Your task to perform on an android device: set the timer Image 0: 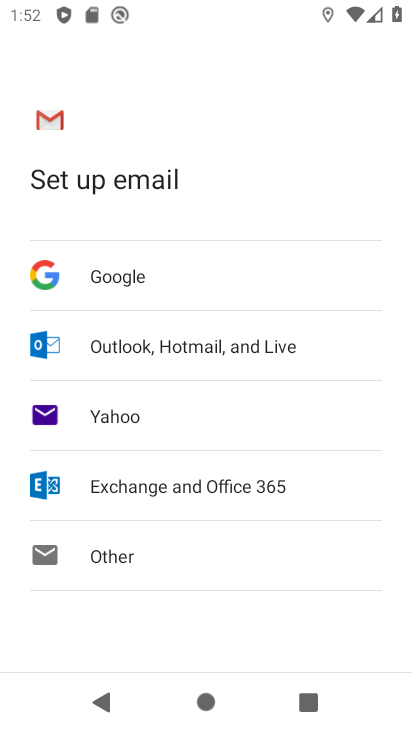
Step 0: press back button
Your task to perform on an android device: set the timer Image 1: 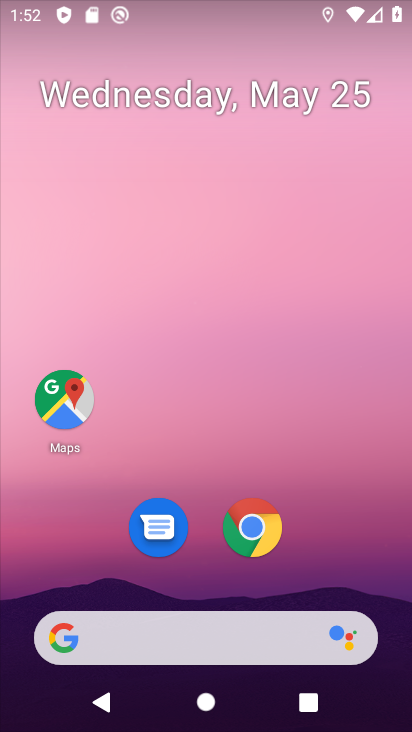
Step 1: drag from (55, 610) to (213, 58)
Your task to perform on an android device: set the timer Image 2: 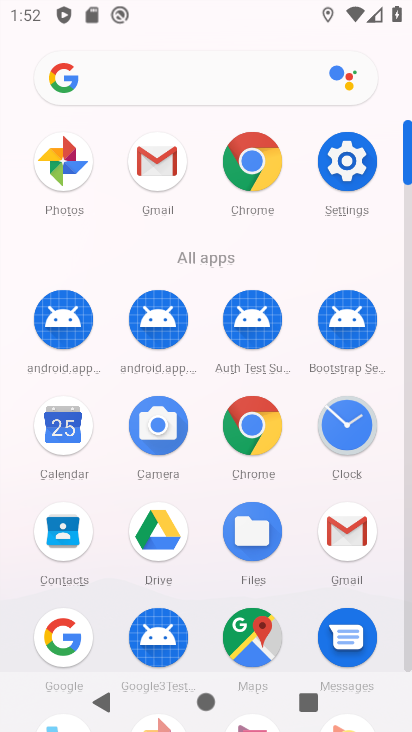
Step 2: click (351, 420)
Your task to perform on an android device: set the timer Image 3: 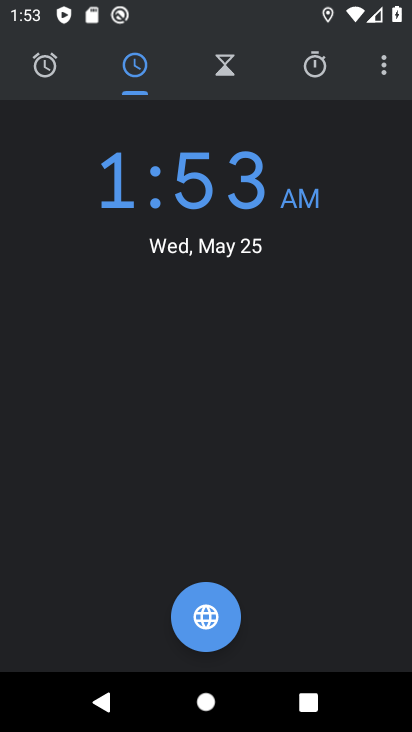
Step 3: click (312, 64)
Your task to perform on an android device: set the timer Image 4: 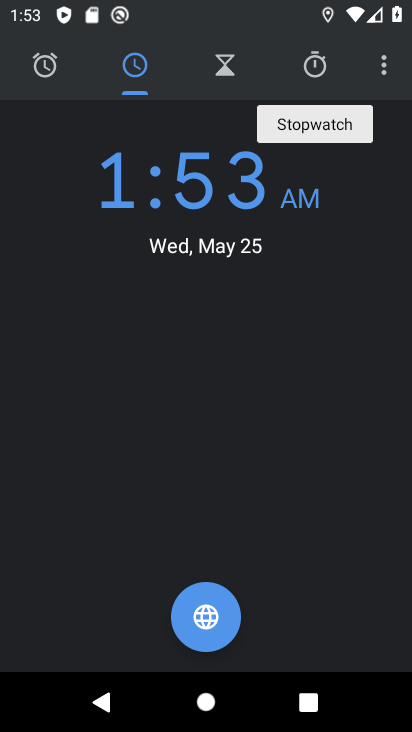
Step 4: click (222, 68)
Your task to perform on an android device: set the timer Image 5: 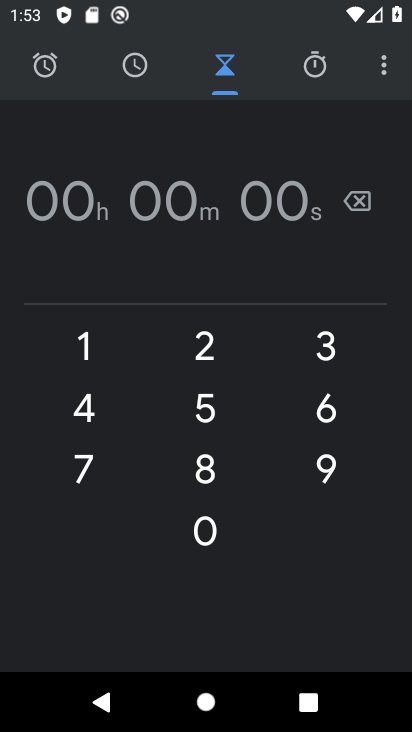
Step 5: click (98, 349)
Your task to perform on an android device: set the timer Image 6: 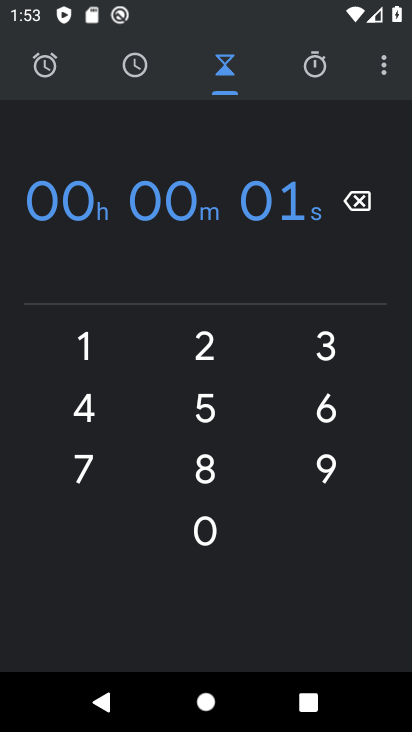
Step 6: click (178, 363)
Your task to perform on an android device: set the timer Image 7: 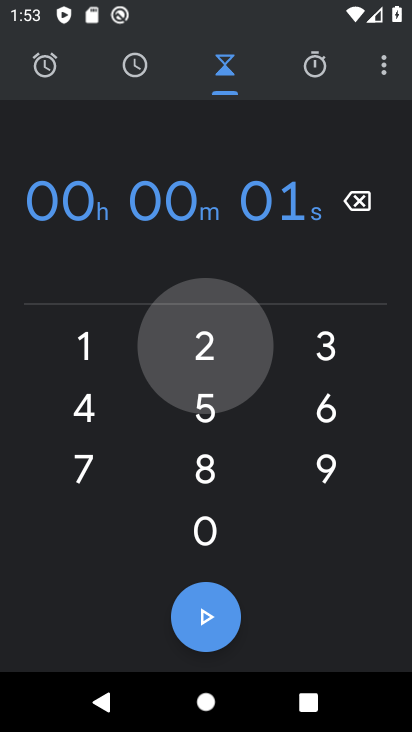
Step 7: click (189, 355)
Your task to perform on an android device: set the timer Image 8: 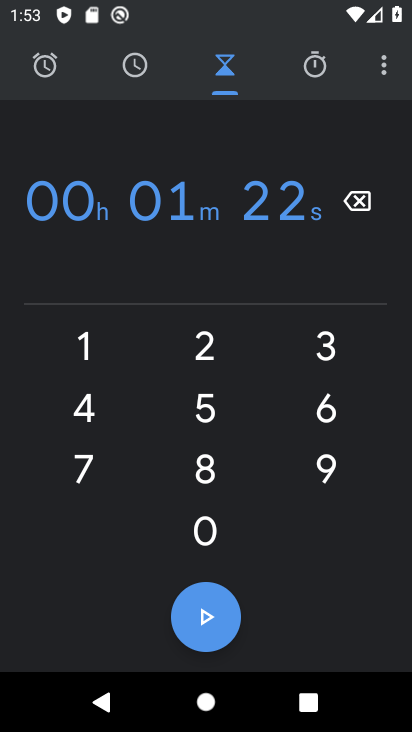
Step 8: click (84, 468)
Your task to perform on an android device: set the timer Image 9: 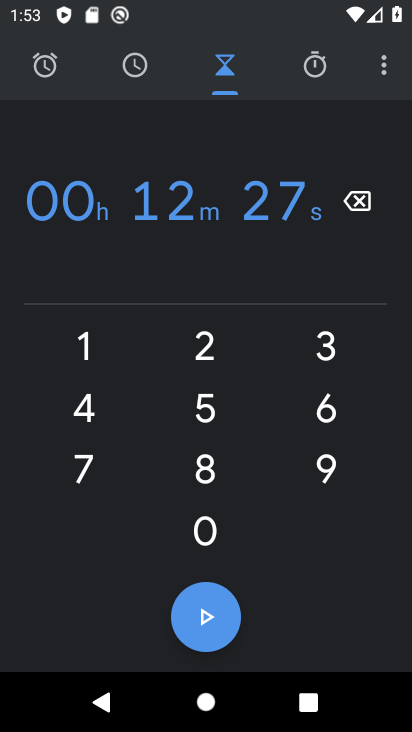
Step 9: click (85, 466)
Your task to perform on an android device: set the timer Image 10: 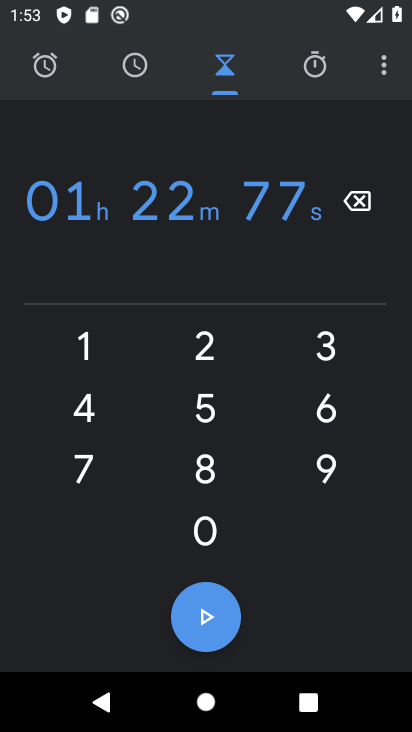
Step 10: click (222, 472)
Your task to perform on an android device: set the timer Image 11: 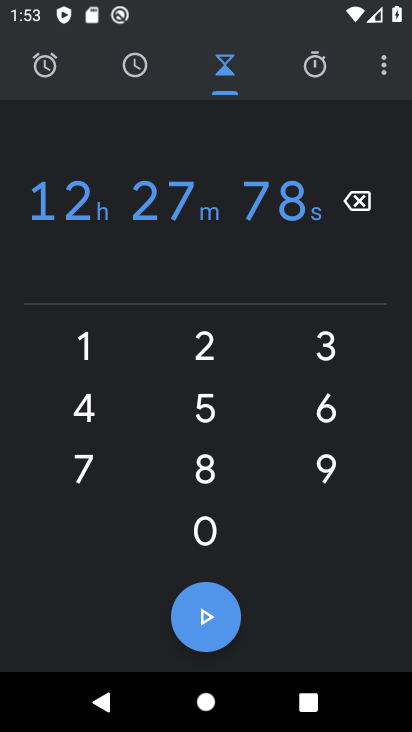
Step 11: click (320, 465)
Your task to perform on an android device: set the timer Image 12: 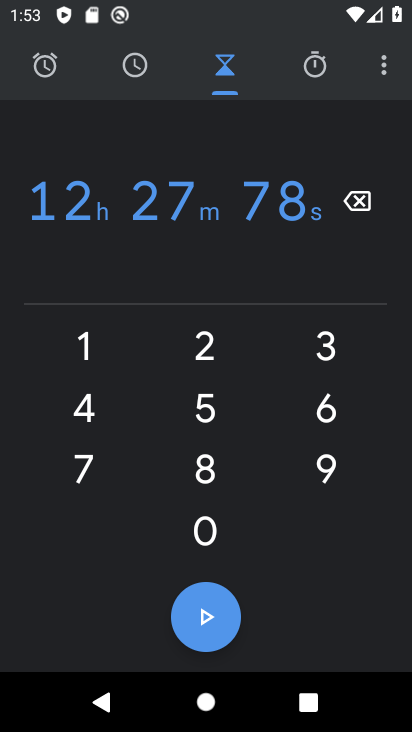
Step 12: click (320, 464)
Your task to perform on an android device: set the timer Image 13: 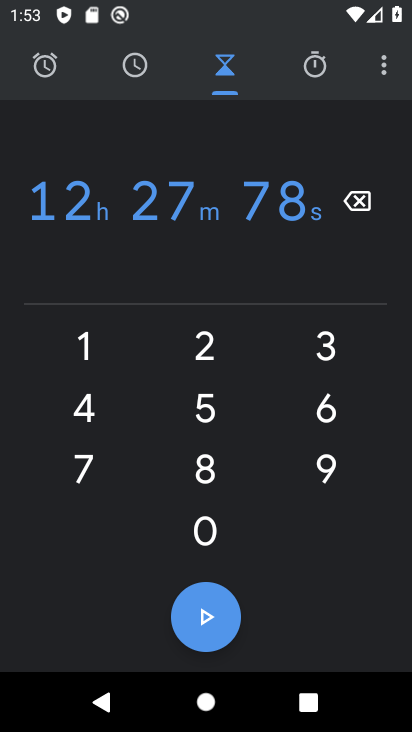
Step 13: click (171, 618)
Your task to perform on an android device: set the timer Image 14: 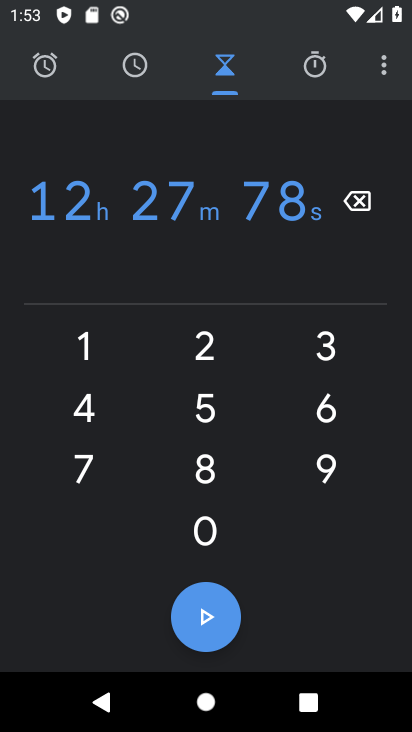
Step 14: click (233, 616)
Your task to perform on an android device: set the timer Image 15: 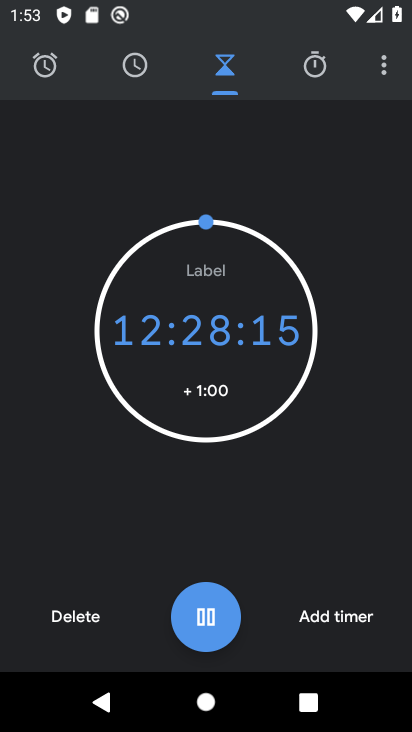
Step 15: task complete